Your task to perform on an android device: Check the weather Image 0: 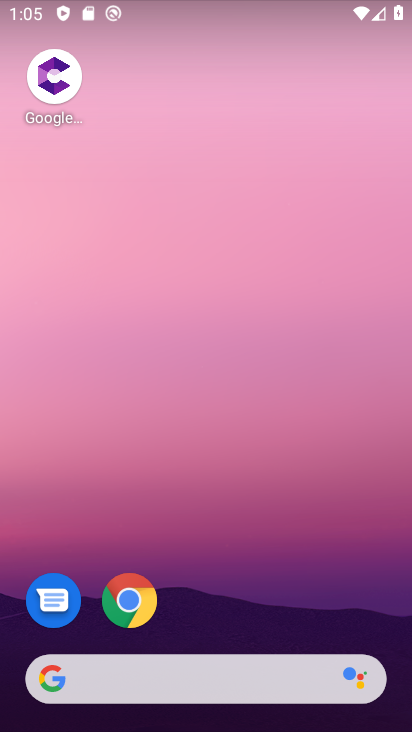
Step 0: drag from (245, 429) to (243, 177)
Your task to perform on an android device: Check the weather Image 1: 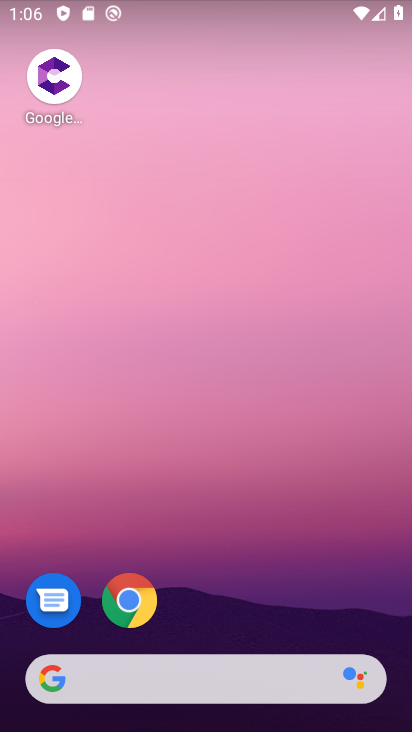
Step 1: drag from (191, 628) to (189, 192)
Your task to perform on an android device: Check the weather Image 2: 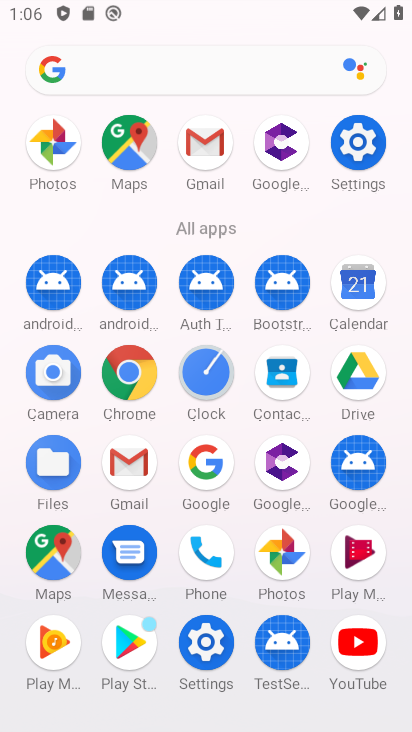
Step 2: click (213, 476)
Your task to perform on an android device: Check the weather Image 3: 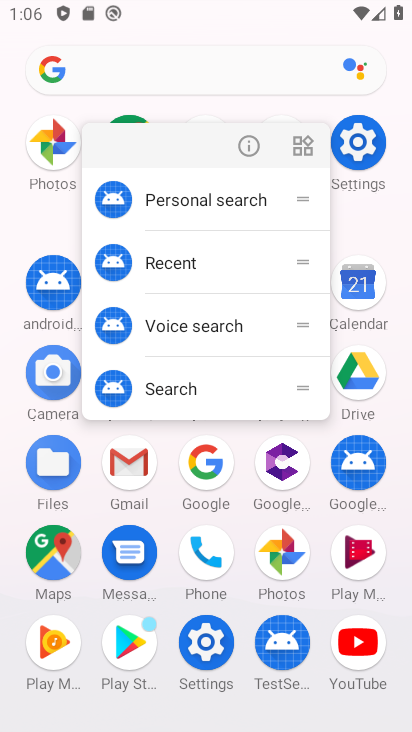
Step 3: click (217, 478)
Your task to perform on an android device: Check the weather Image 4: 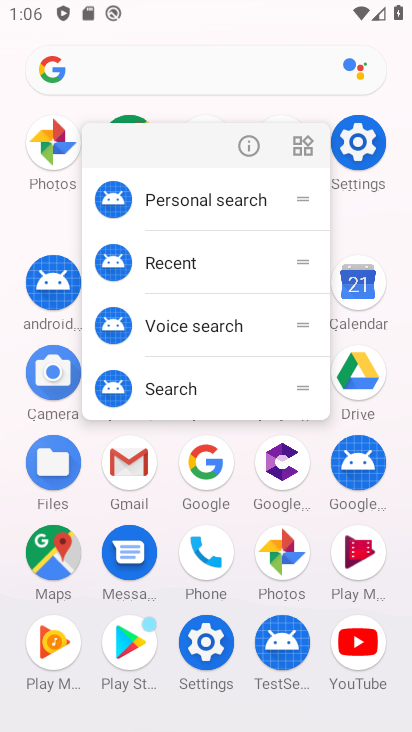
Step 4: click (218, 479)
Your task to perform on an android device: Check the weather Image 5: 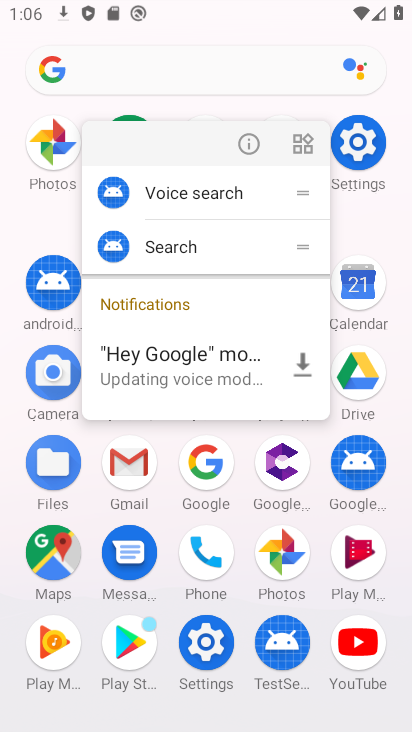
Step 5: click (218, 479)
Your task to perform on an android device: Check the weather Image 6: 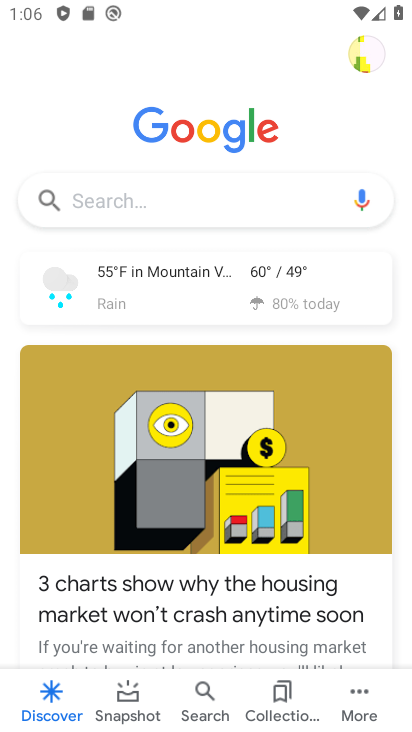
Step 6: click (150, 266)
Your task to perform on an android device: Check the weather Image 7: 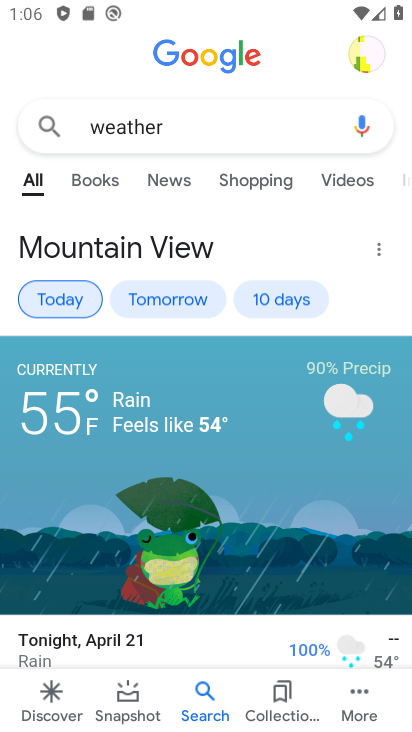
Step 7: click (291, 302)
Your task to perform on an android device: Check the weather Image 8: 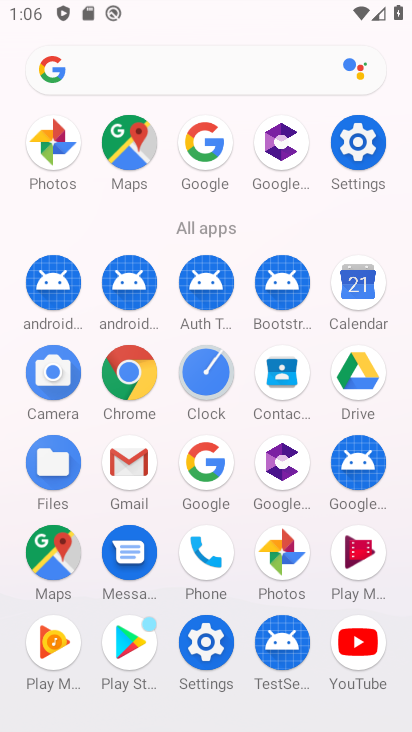
Step 8: task complete